Your task to perform on an android device: Go to Android settings Image 0: 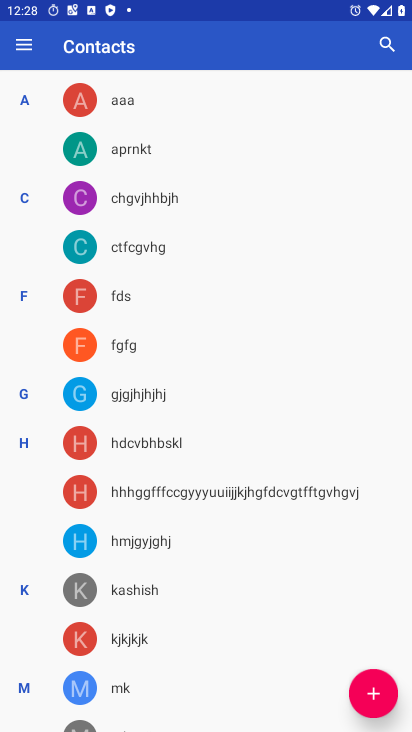
Step 0: press home button
Your task to perform on an android device: Go to Android settings Image 1: 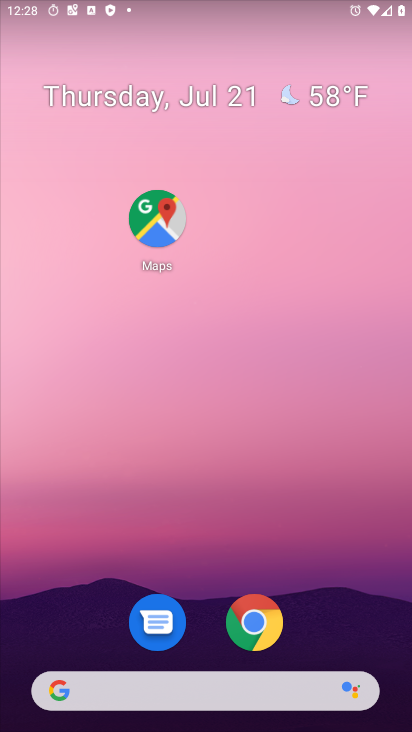
Step 1: drag from (34, 676) to (143, 272)
Your task to perform on an android device: Go to Android settings Image 2: 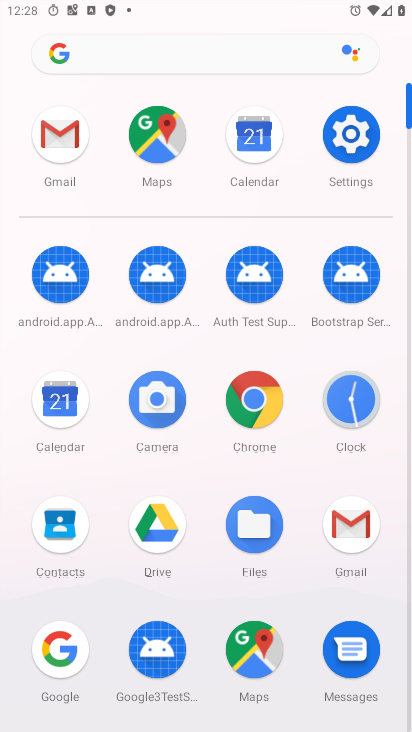
Step 2: click (348, 138)
Your task to perform on an android device: Go to Android settings Image 3: 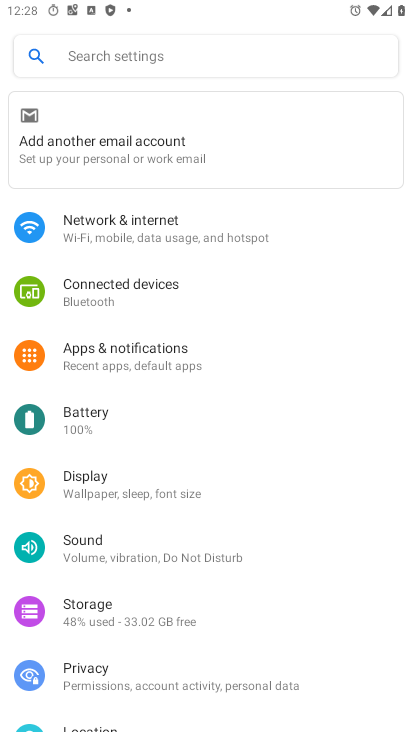
Step 3: drag from (177, 566) to (184, 238)
Your task to perform on an android device: Go to Android settings Image 4: 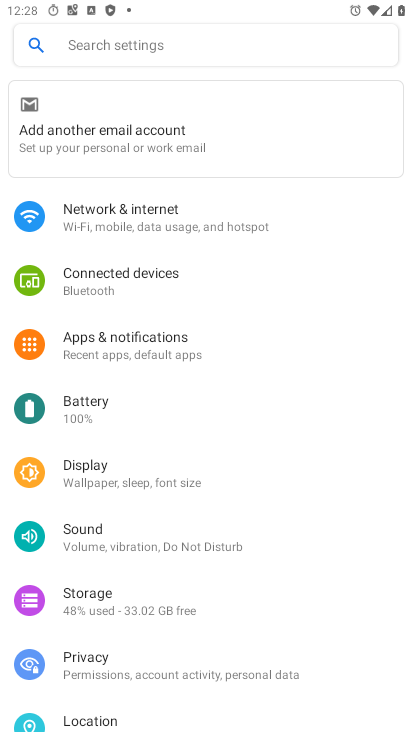
Step 4: drag from (145, 689) to (147, 95)
Your task to perform on an android device: Go to Android settings Image 5: 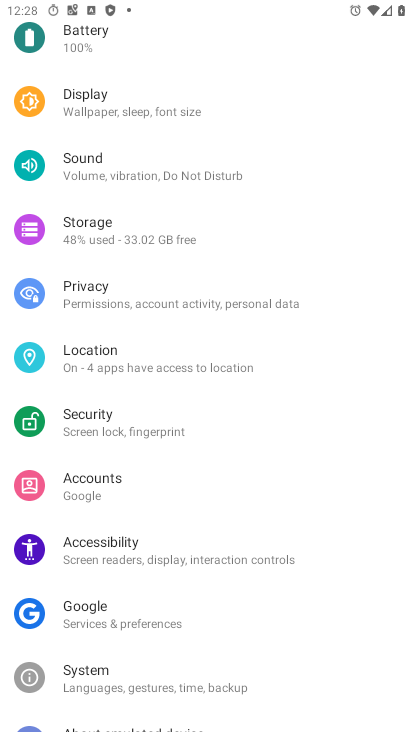
Step 5: drag from (128, 685) to (131, 211)
Your task to perform on an android device: Go to Android settings Image 6: 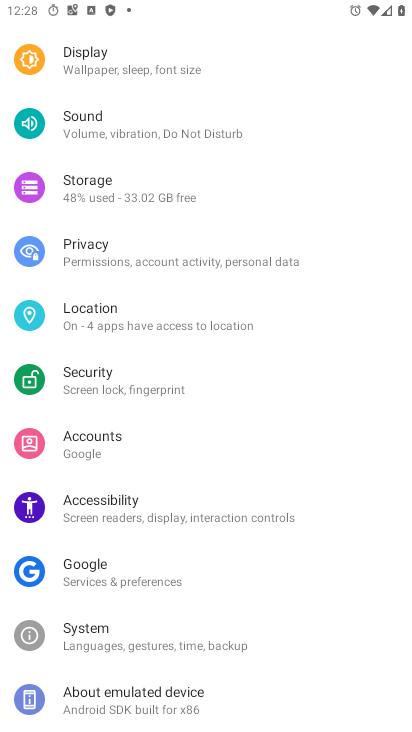
Step 6: click (146, 699)
Your task to perform on an android device: Go to Android settings Image 7: 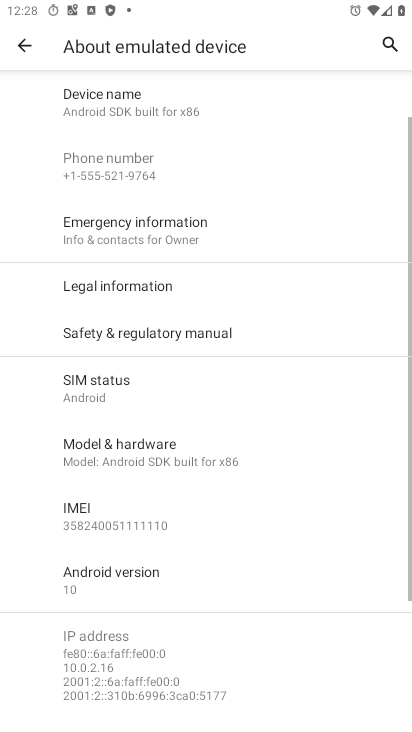
Step 7: click (135, 581)
Your task to perform on an android device: Go to Android settings Image 8: 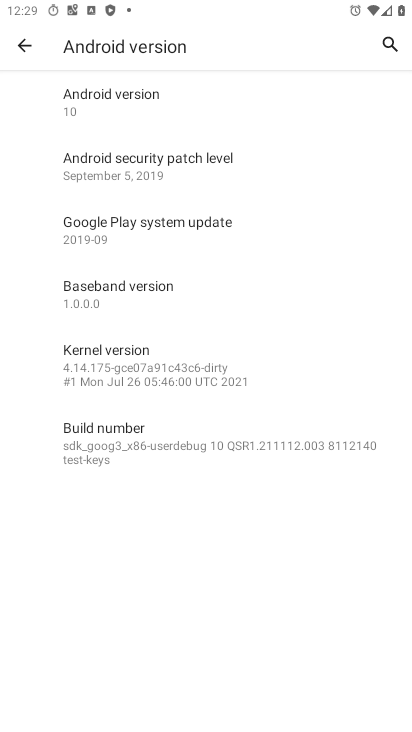
Step 8: task complete